Your task to perform on an android device: What's on my calendar tomorrow? Image 0: 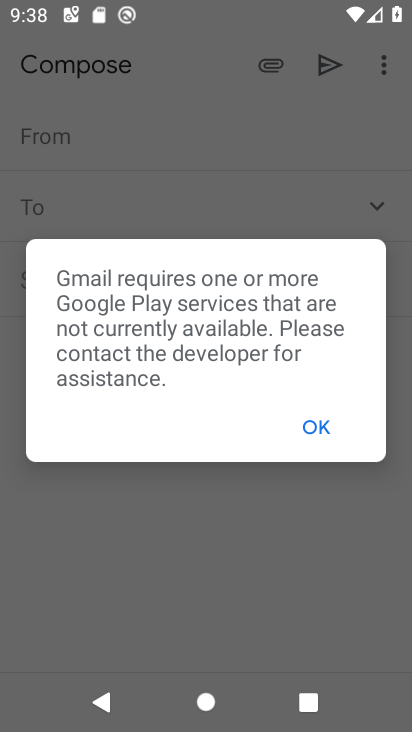
Step 0: press home button
Your task to perform on an android device: What's on my calendar tomorrow? Image 1: 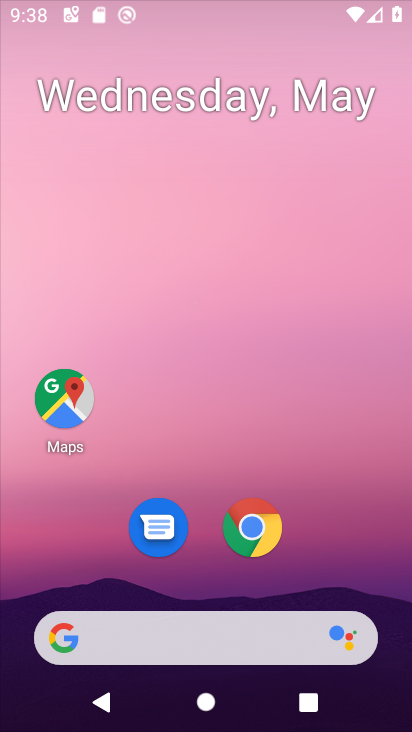
Step 1: drag from (218, 595) to (266, 42)
Your task to perform on an android device: What's on my calendar tomorrow? Image 2: 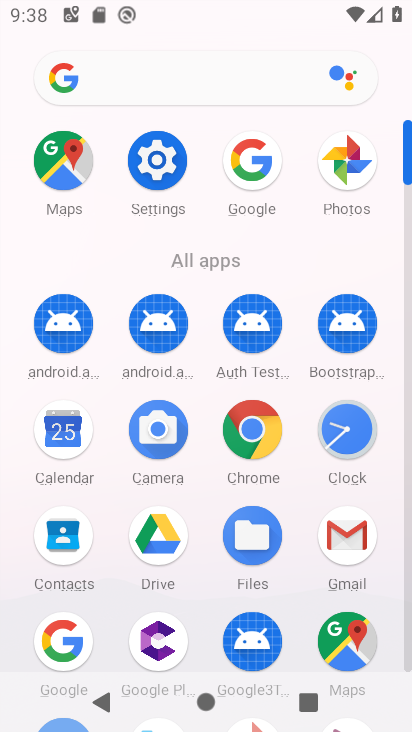
Step 2: click (62, 440)
Your task to perform on an android device: What's on my calendar tomorrow? Image 3: 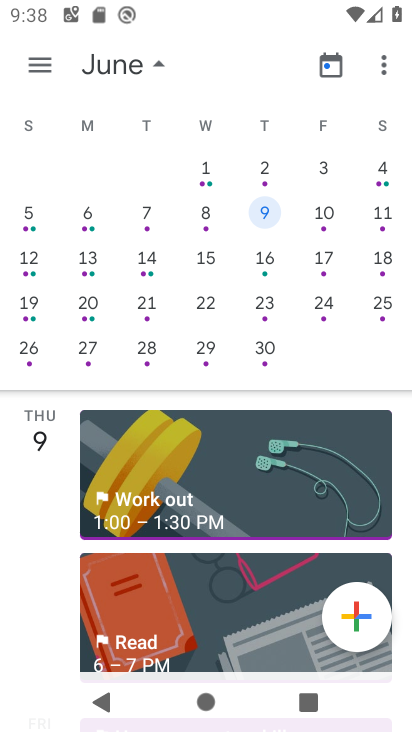
Step 3: drag from (51, 347) to (407, 343)
Your task to perform on an android device: What's on my calendar tomorrow? Image 4: 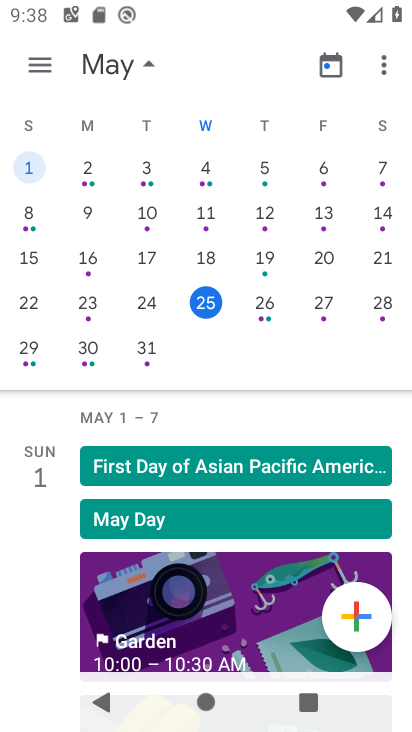
Step 4: click (264, 301)
Your task to perform on an android device: What's on my calendar tomorrow? Image 5: 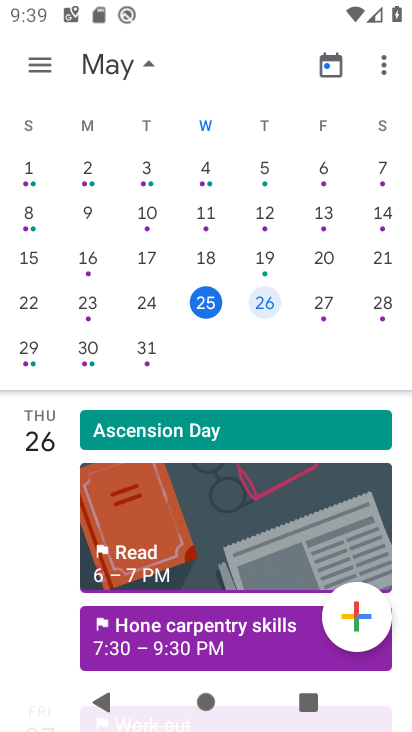
Step 5: task complete